Your task to perform on an android device: turn on showing notifications on the lock screen Image 0: 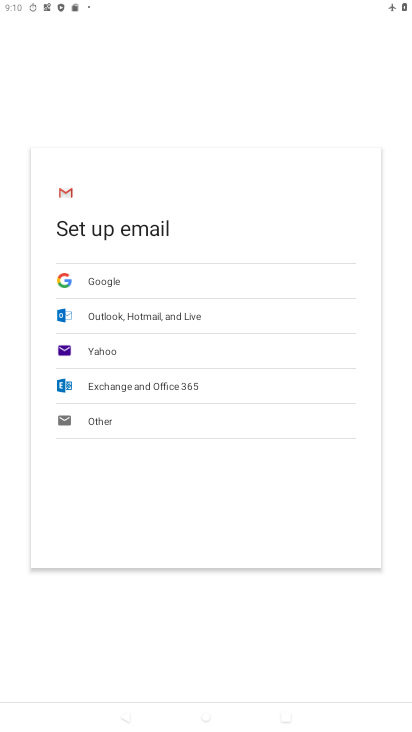
Step 0: press home button
Your task to perform on an android device: turn on showing notifications on the lock screen Image 1: 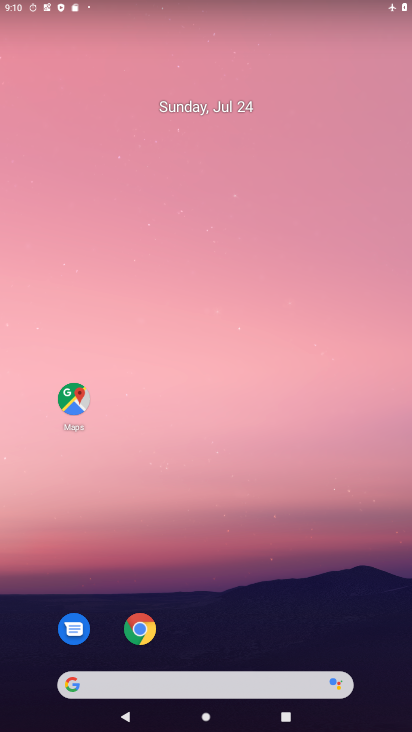
Step 1: drag from (176, 696) to (210, 97)
Your task to perform on an android device: turn on showing notifications on the lock screen Image 2: 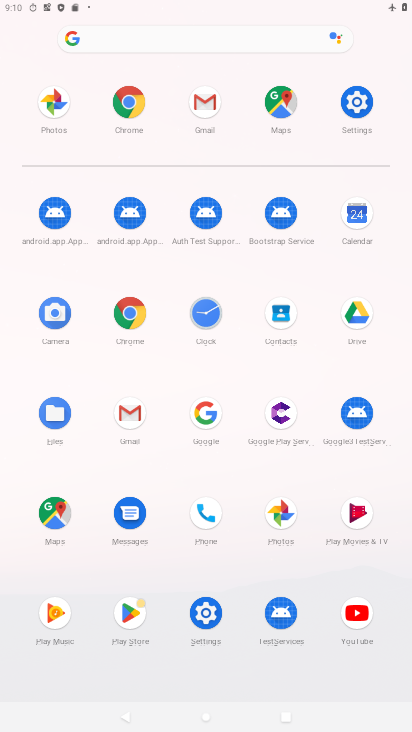
Step 2: click (340, 130)
Your task to perform on an android device: turn on showing notifications on the lock screen Image 3: 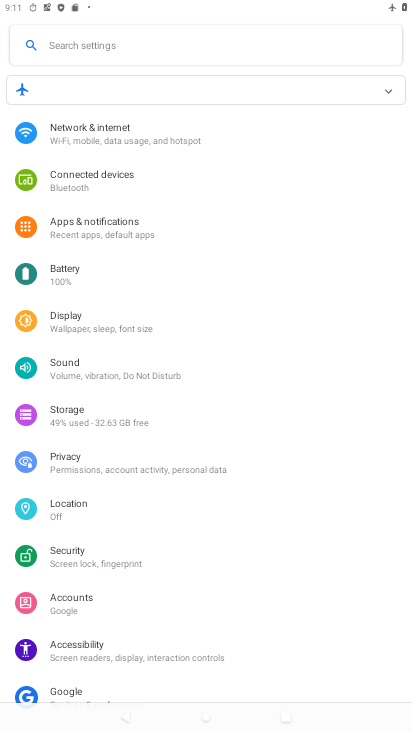
Step 3: click (112, 226)
Your task to perform on an android device: turn on showing notifications on the lock screen Image 4: 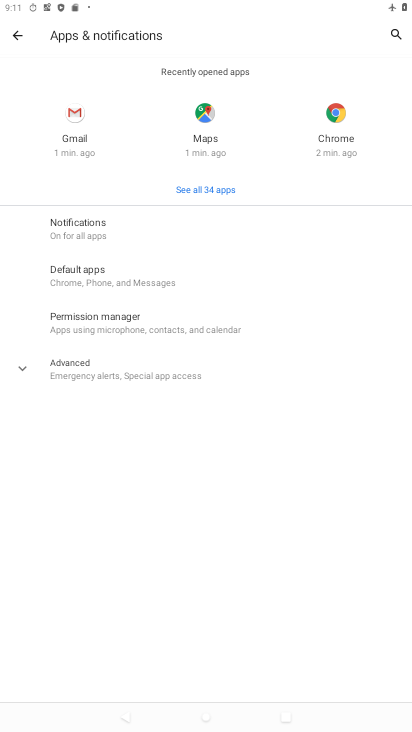
Step 4: click (126, 234)
Your task to perform on an android device: turn on showing notifications on the lock screen Image 5: 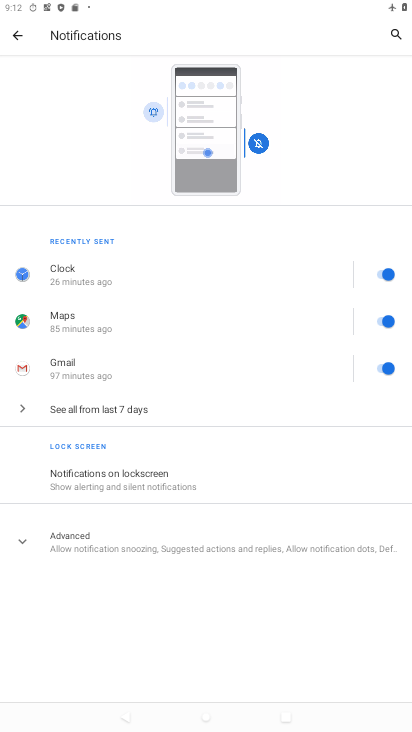
Step 5: click (140, 476)
Your task to perform on an android device: turn on showing notifications on the lock screen Image 6: 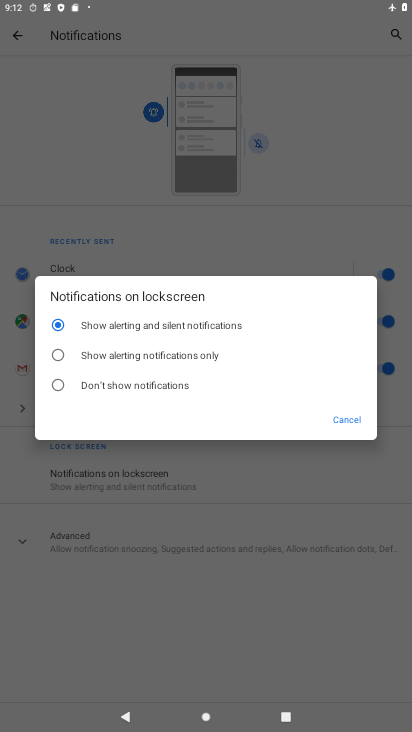
Step 6: task complete